Your task to perform on an android device: Open Google Chrome and click the shortcut for Amazon.com Image 0: 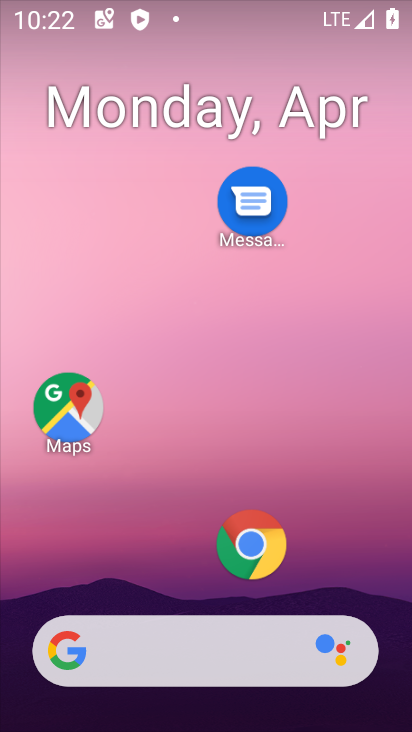
Step 0: drag from (187, 574) to (189, 111)
Your task to perform on an android device: Open Google Chrome and click the shortcut for Amazon.com Image 1: 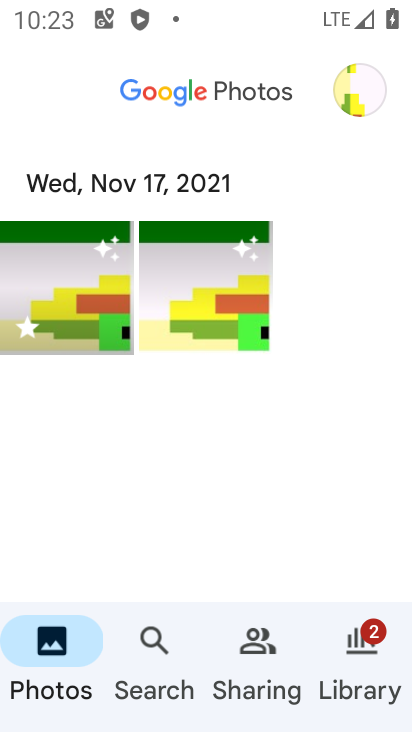
Step 1: press home button
Your task to perform on an android device: Open Google Chrome and click the shortcut for Amazon.com Image 2: 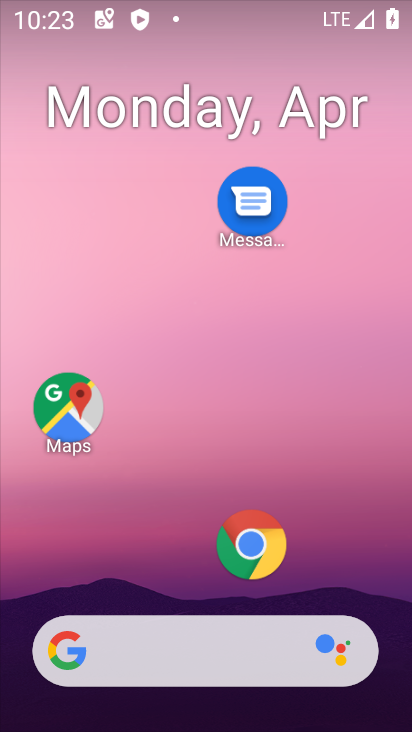
Step 2: click (248, 535)
Your task to perform on an android device: Open Google Chrome and click the shortcut for Amazon.com Image 3: 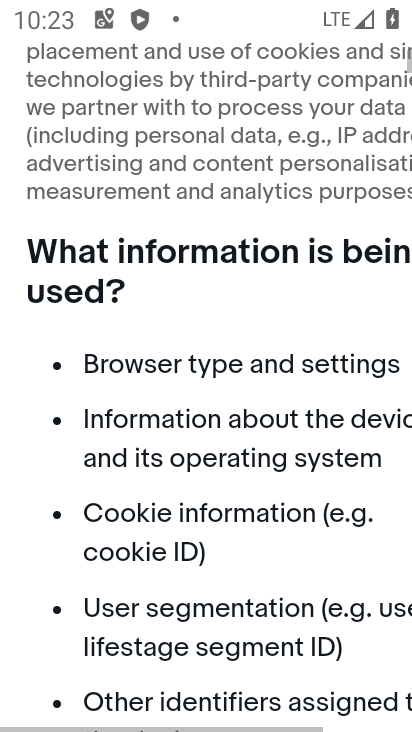
Step 3: press back button
Your task to perform on an android device: Open Google Chrome and click the shortcut for Amazon.com Image 4: 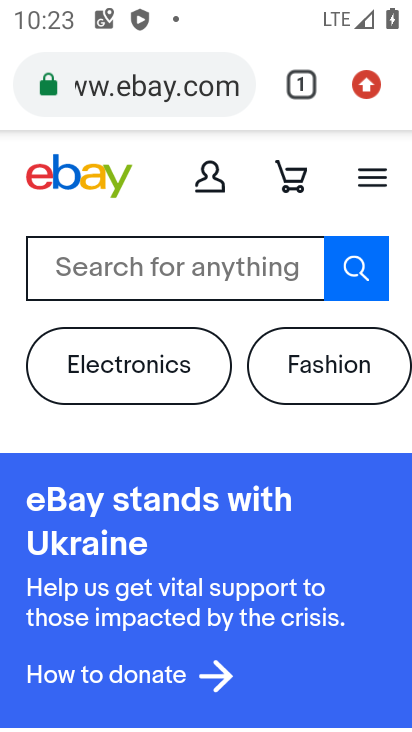
Step 4: click (300, 75)
Your task to perform on an android device: Open Google Chrome and click the shortcut for Amazon.com Image 5: 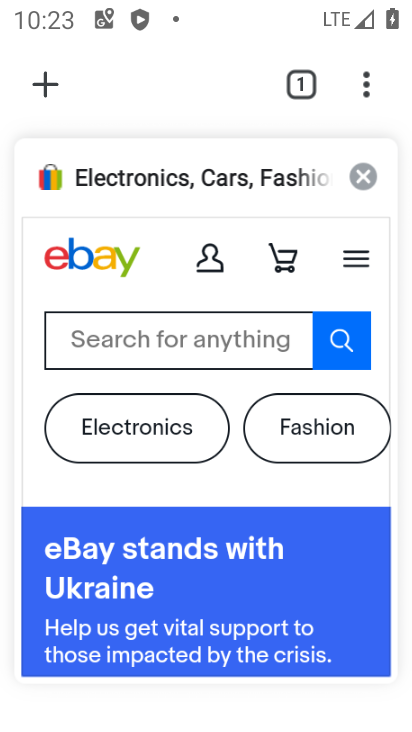
Step 5: click (357, 174)
Your task to perform on an android device: Open Google Chrome and click the shortcut for Amazon.com Image 6: 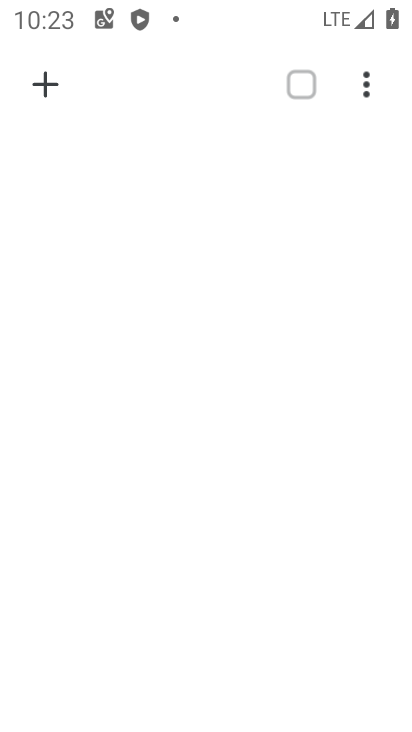
Step 6: click (49, 80)
Your task to perform on an android device: Open Google Chrome and click the shortcut for Amazon.com Image 7: 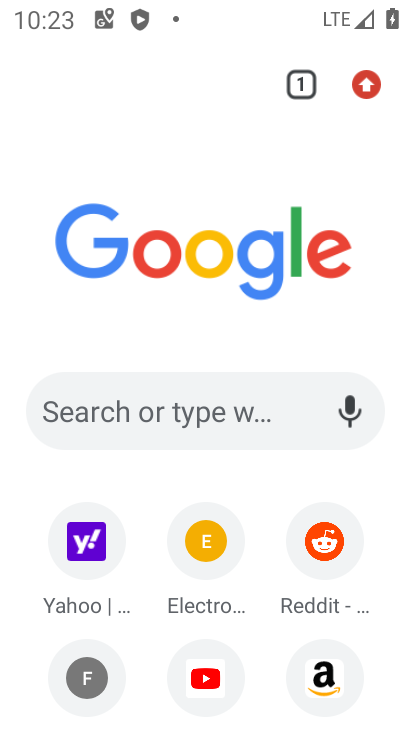
Step 7: click (316, 665)
Your task to perform on an android device: Open Google Chrome and click the shortcut for Amazon.com Image 8: 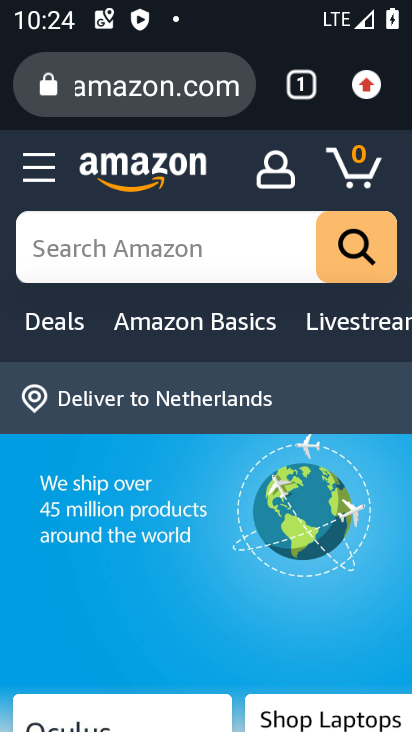
Step 8: task complete